Your task to perform on an android device: Open settings Image 0: 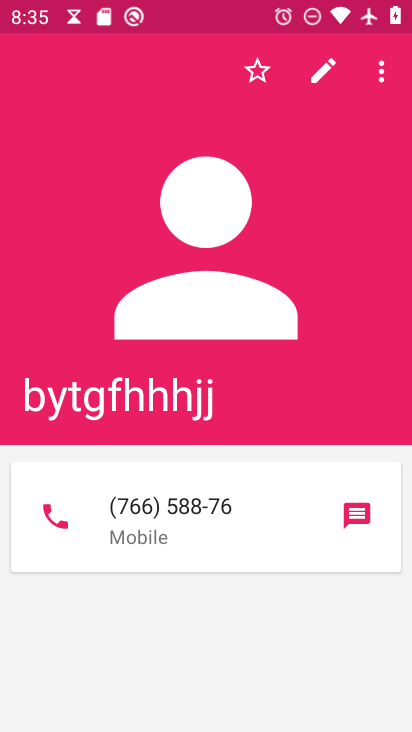
Step 0: press home button
Your task to perform on an android device: Open settings Image 1: 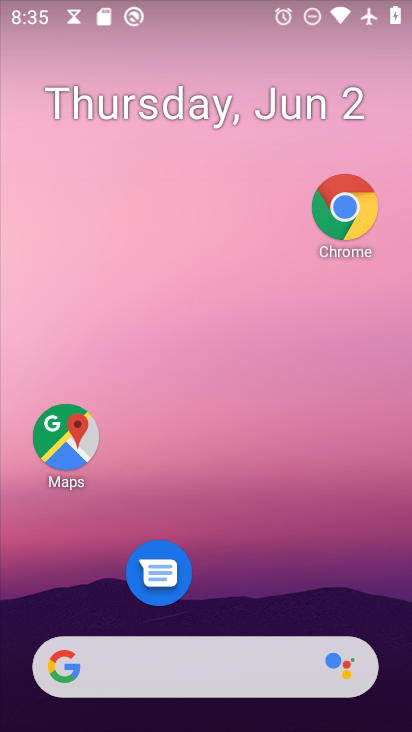
Step 1: drag from (170, 649) to (337, 57)
Your task to perform on an android device: Open settings Image 2: 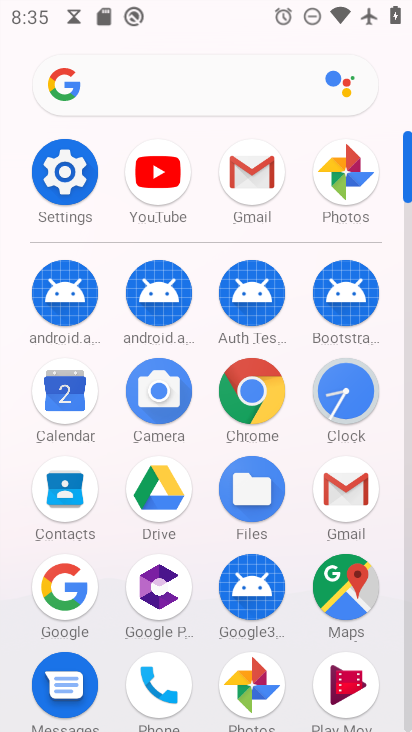
Step 2: click (67, 192)
Your task to perform on an android device: Open settings Image 3: 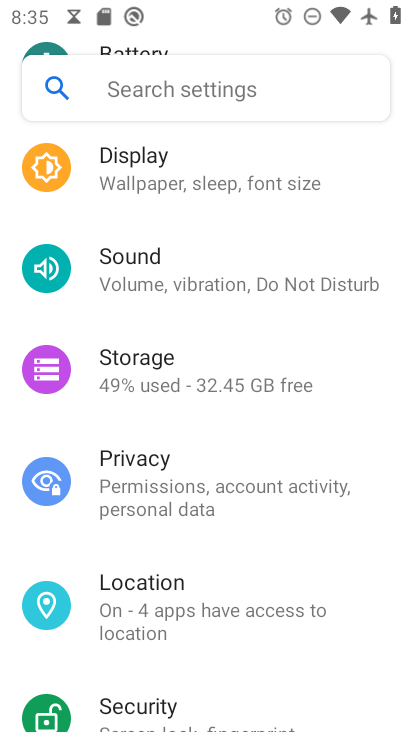
Step 3: task complete